Your task to perform on an android device: Open Android settings Image 0: 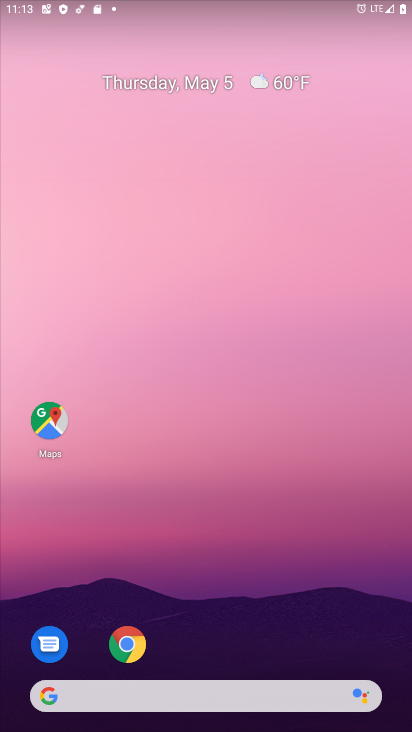
Step 0: drag from (219, 636) to (305, 92)
Your task to perform on an android device: Open Android settings Image 1: 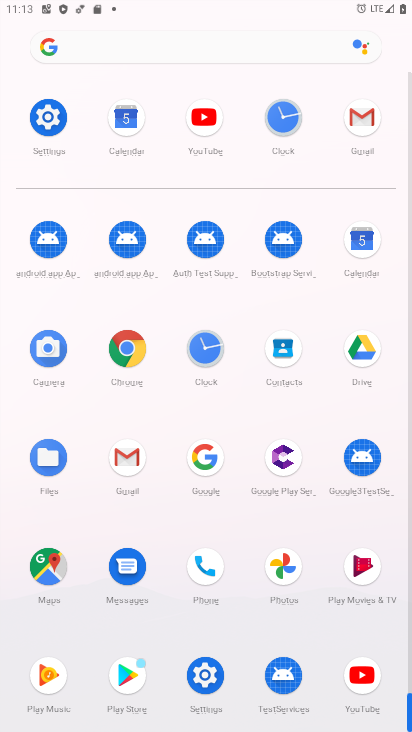
Step 1: click (218, 678)
Your task to perform on an android device: Open Android settings Image 2: 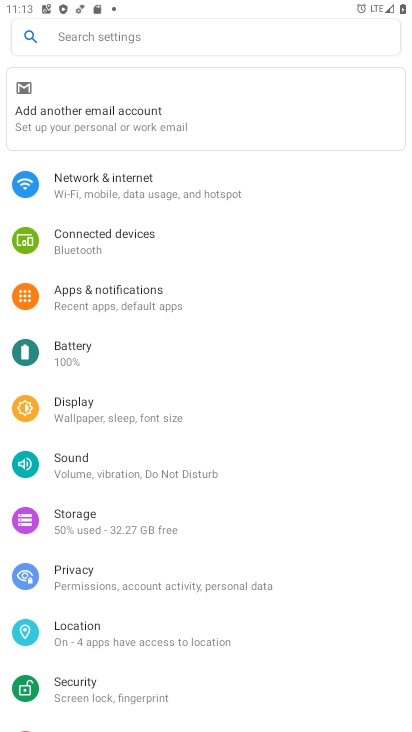
Step 2: drag from (140, 616) to (140, 238)
Your task to perform on an android device: Open Android settings Image 3: 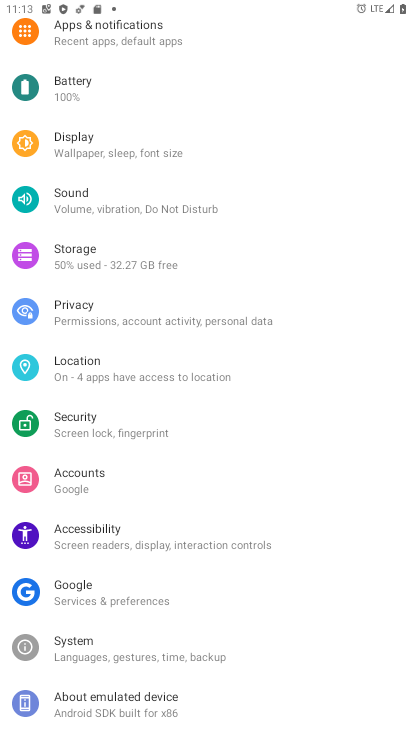
Step 3: click (115, 706)
Your task to perform on an android device: Open Android settings Image 4: 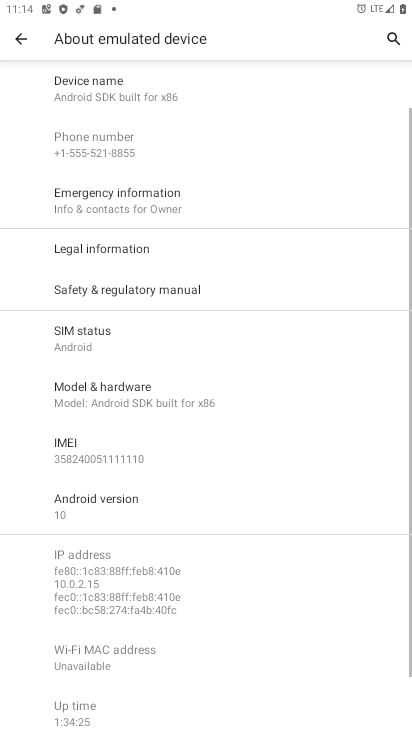
Step 4: task complete